Your task to perform on an android device: What's the weather going to be tomorrow? Image 0: 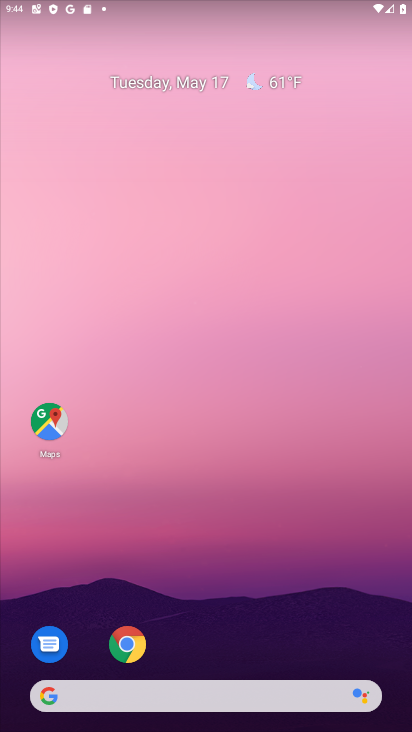
Step 0: click (287, 81)
Your task to perform on an android device: What's the weather going to be tomorrow? Image 1: 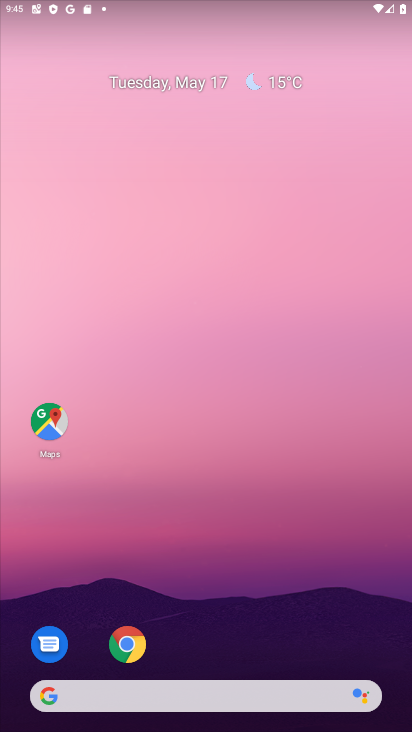
Step 1: click (287, 81)
Your task to perform on an android device: What's the weather going to be tomorrow? Image 2: 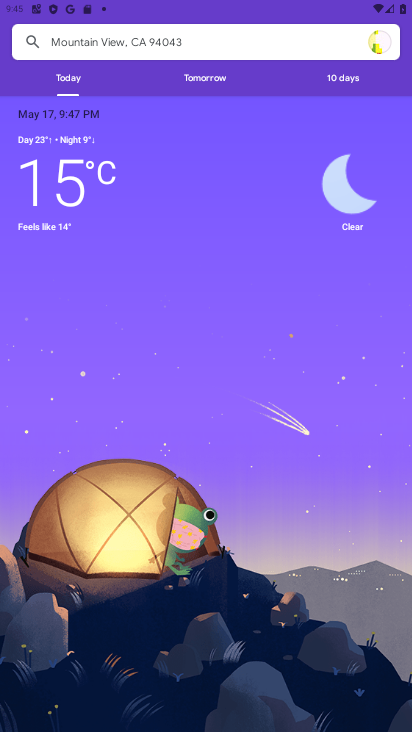
Step 2: click (227, 88)
Your task to perform on an android device: What's the weather going to be tomorrow? Image 3: 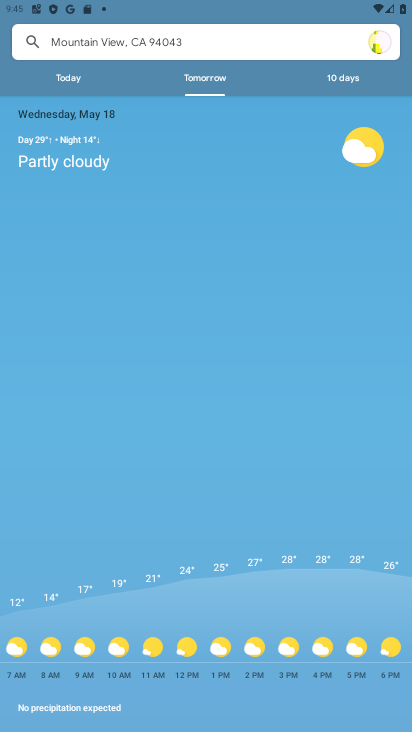
Step 3: task complete